Your task to perform on an android device: empty trash in the gmail app Image 0: 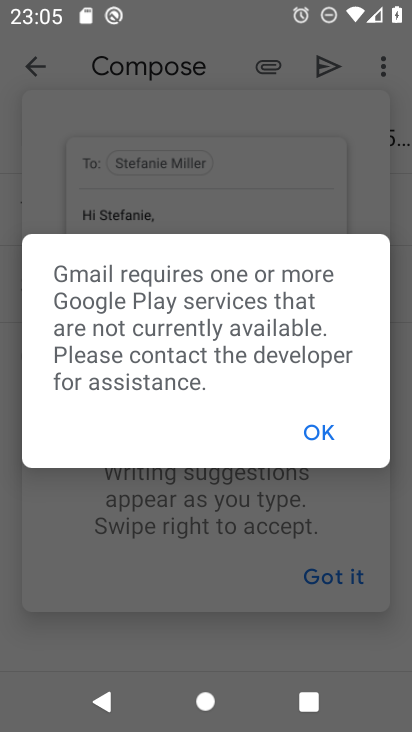
Step 0: press home button
Your task to perform on an android device: empty trash in the gmail app Image 1: 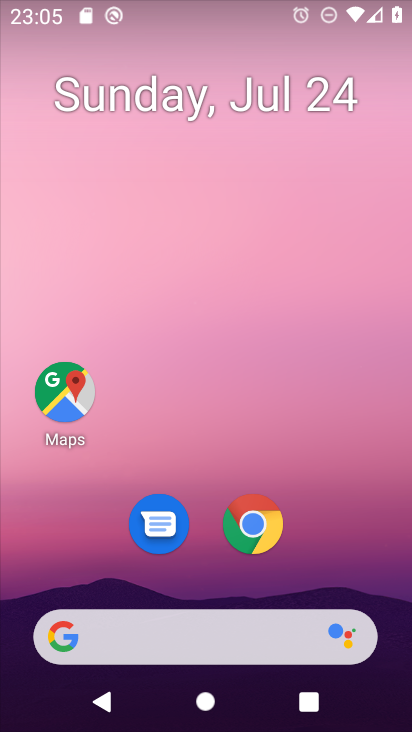
Step 1: drag from (174, 627) to (354, 21)
Your task to perform on an android device: empty trash in the gmail app Image 2: 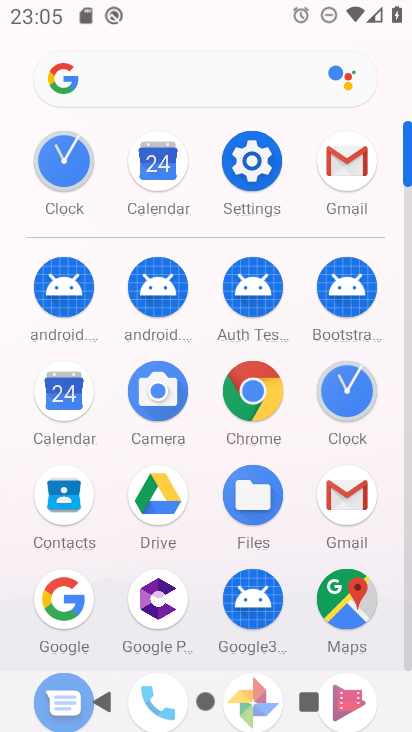
Step 2: click (343, 161)
Your task to perform on an android device: empty trash in the gmail app Image 3: 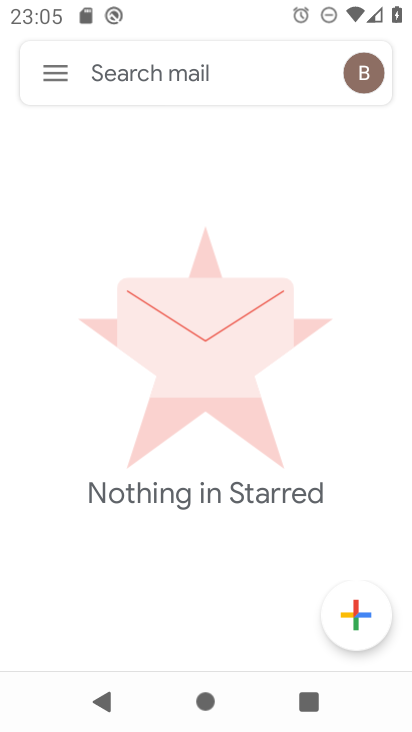
Step 3: click (49, 80)
Your task to perform on an android device: empty trash in the gmail app Image 4: 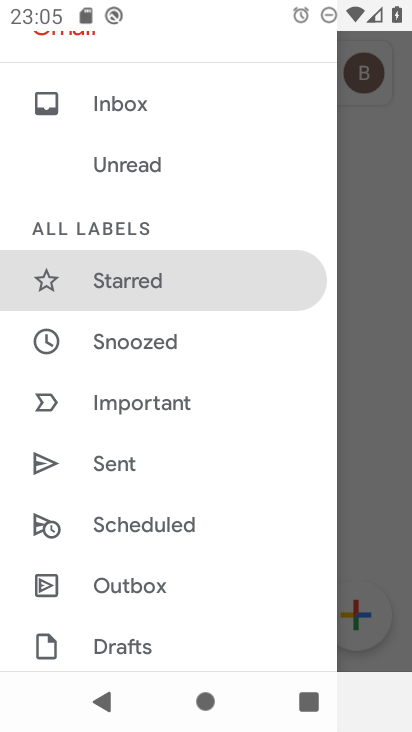
Step 4: drag from (203, 595) to (264, 205)
Your task to perform on an android device: empty trash in the gmail app Image 5: 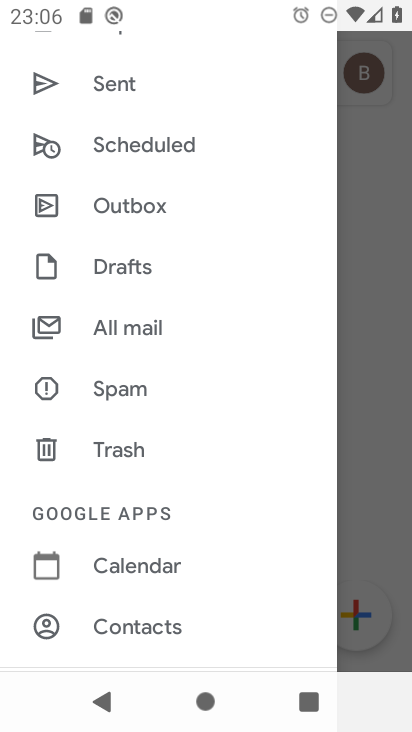
Step 5: click (160, 459)
Your task to perform on an android device: empty trash in the gmail app Image 6: 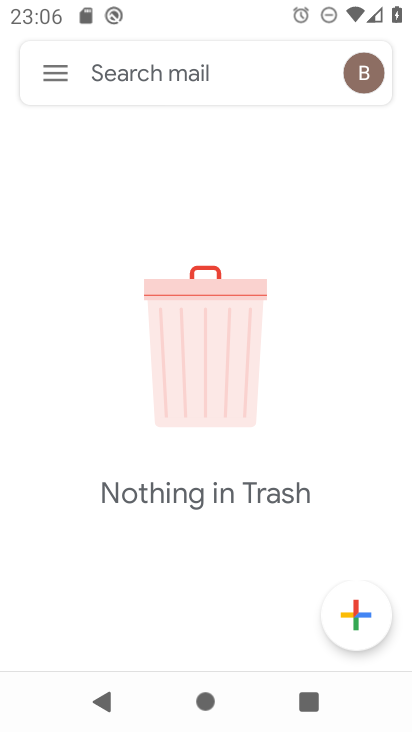
Step 6: task complete